Your task to perform on an android device: Turn off the flashlight Image 0: 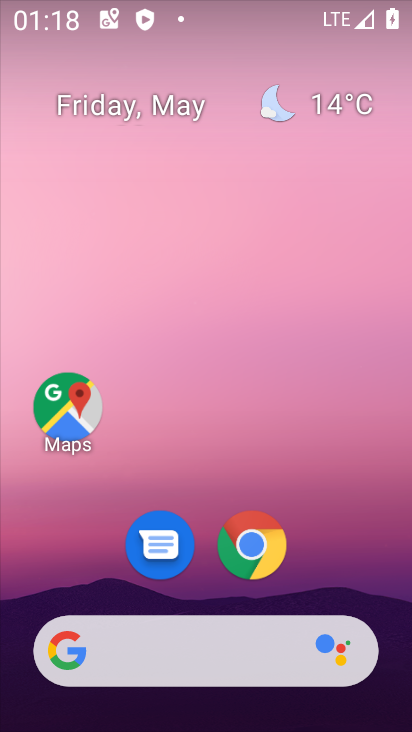
Step 0: drag from (319, 575) to (243, 147)
Your task to perform on an android device: Turn off the flashlight Image 1: 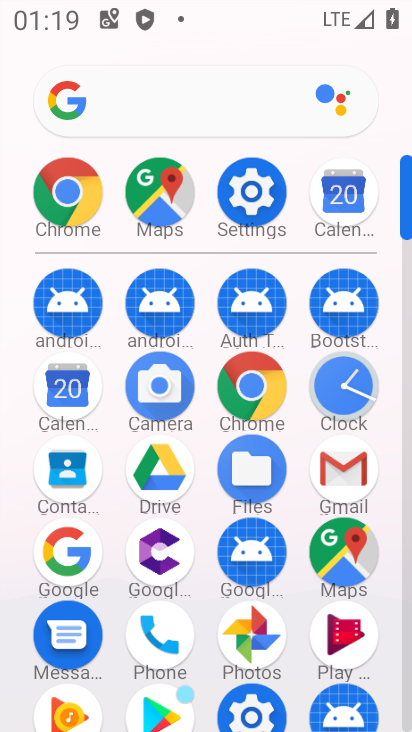
Step 1: task complete